Your task to perform on an android device: change keyboard looks Image 0: 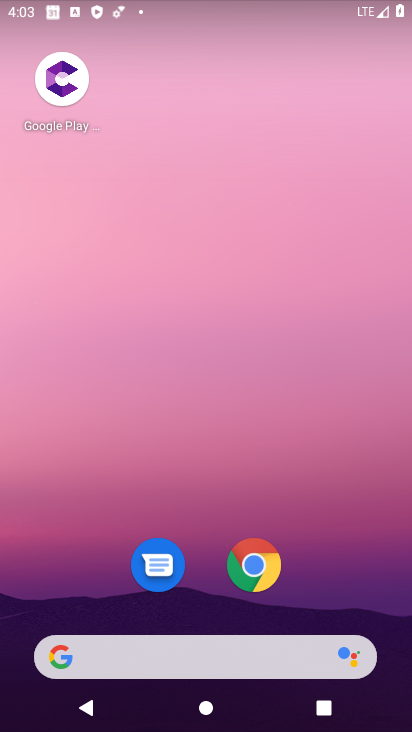
Step 0: drag from (276, 561) to (289, 76)
Your task to perform on an android device: change keyboard looks Image 1: 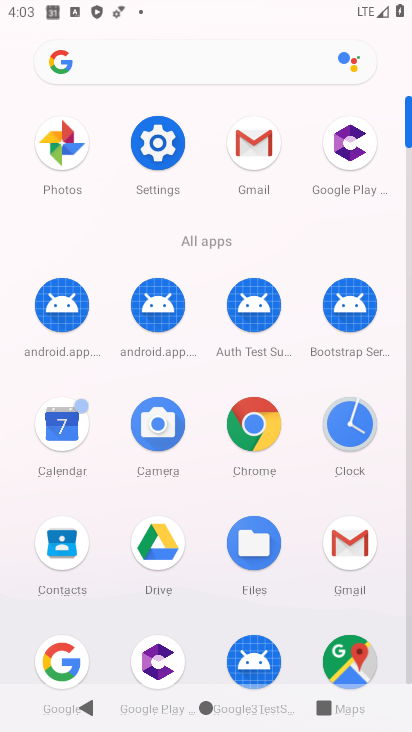
Step 1: click (149, 142)
Your task to perform on an android device: change keyboard looks Image 2: 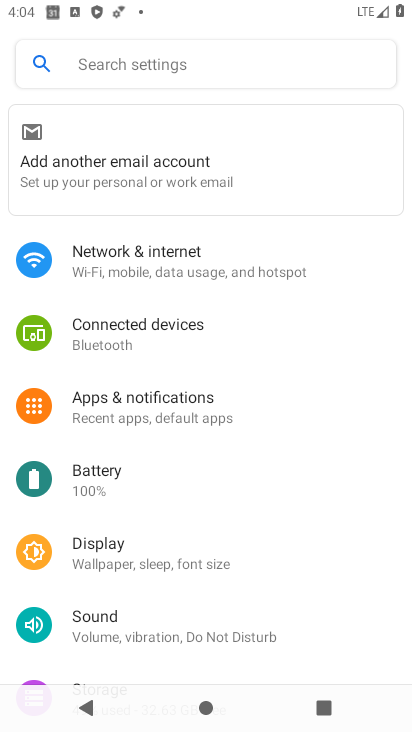
Step 2: drag from (174, 569) to (268, 188)
Your task to perform on an android device: change keyboard looks Image 3: 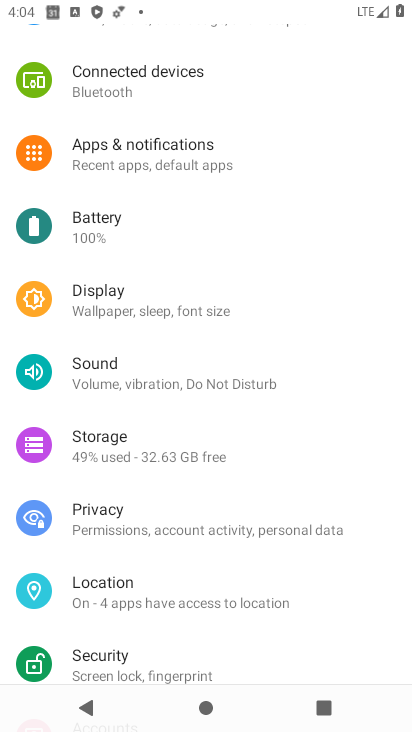
Step 3: drag from (153, 676) to (171, 156)
Your task to perform on an android device: change keyboard looks Image 4: 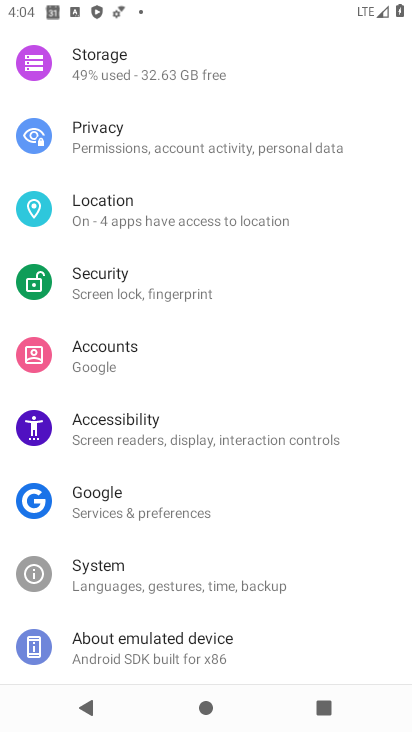
Step 4: click (166, 658)
Your task to perform on an android device: change keyboard looks Image 5: 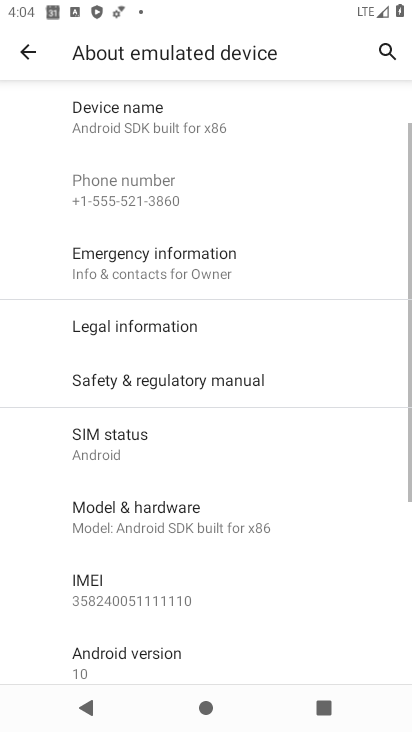
Step 5: press back button
Your task to perform on an android device: change keyboard looks Image 6: 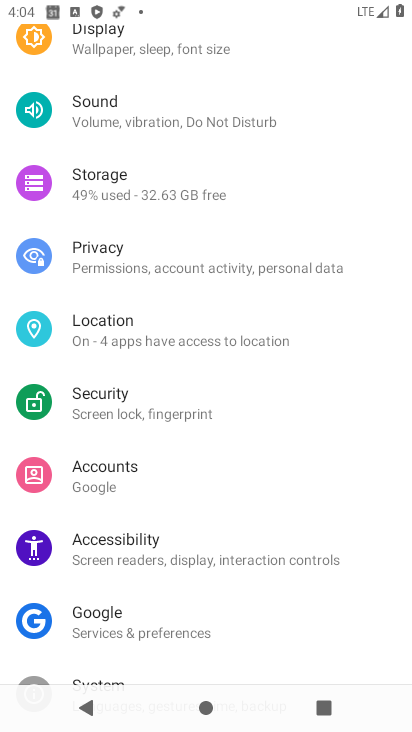
Step 6: drag from (141, 655) to (95, 259)
Your task to perform on an android device: change keyboard looks Image 7: 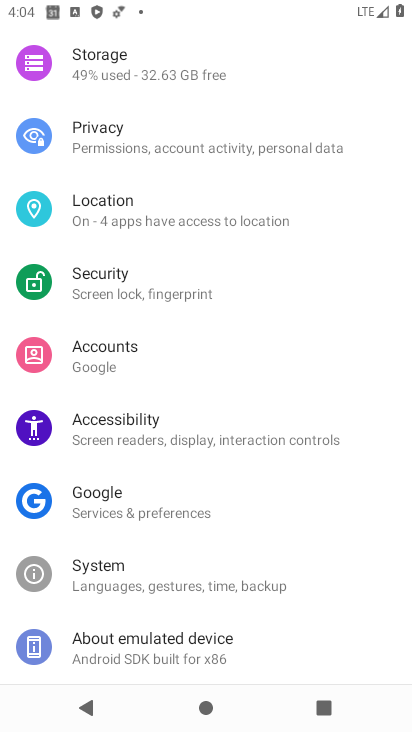
Step 7: click (142, 435)
Your task to perform on an android device: change keyboard looks Image 8: 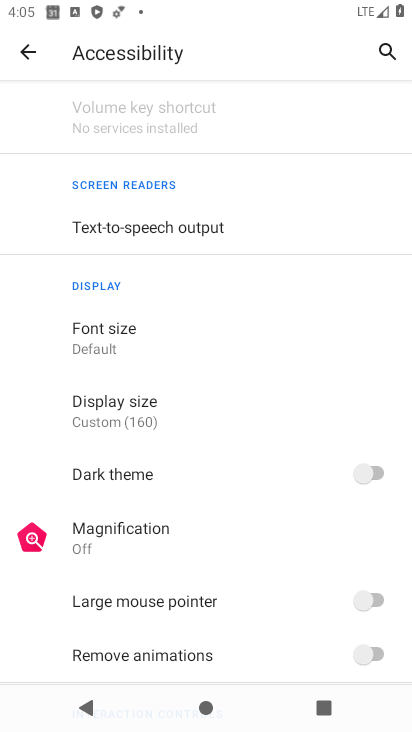
Step 8: drag from (196, 684) to (132, 417)
Your task to perform on an android device: change keyboard looks Image 9: 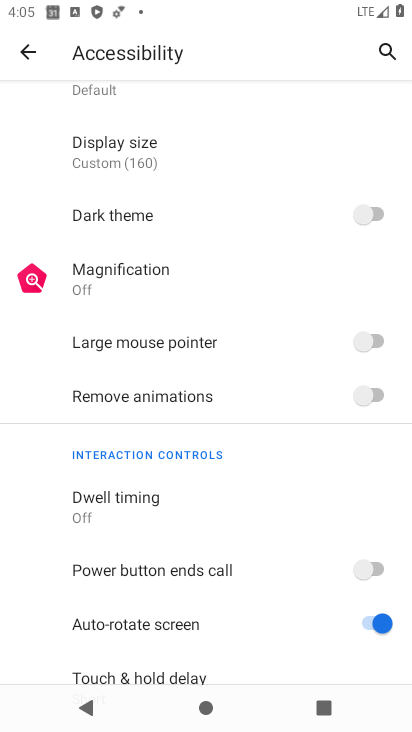
Step 9: press back button
Your task to perform on an android device: change keyboard looks Image 10: 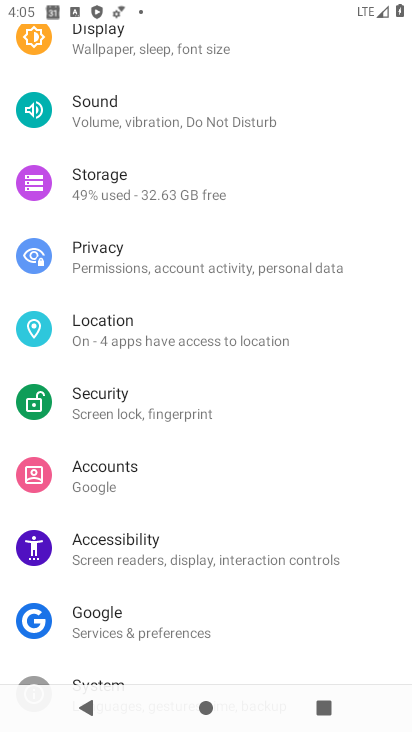
Step 10: drag from (187, 652) to (183, 332)
Your task to perform on an android device: change keyboard looks Image 11: 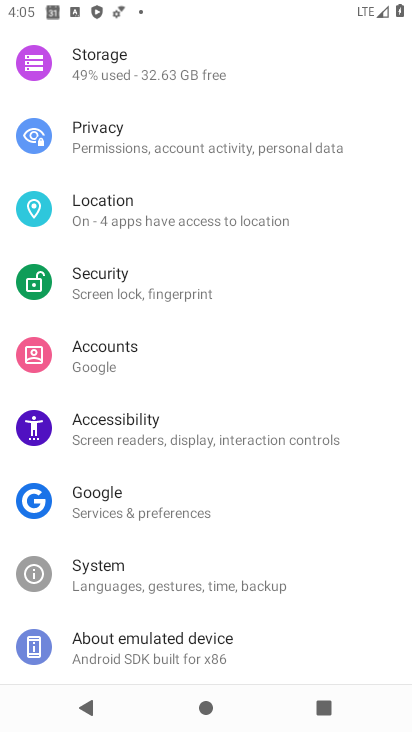
Step 11: click (160, 588)
Your task to perform on an android device: change keyboard looks Image 12: 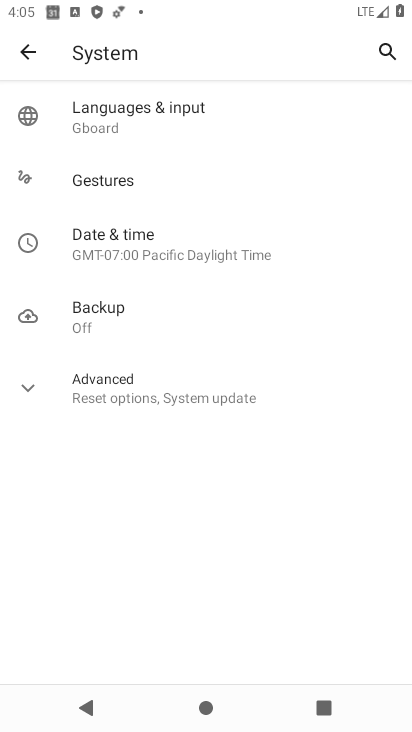
Step 12: click (191, 124)
Your task to perform on an android device: change keyboard looks Image 13: 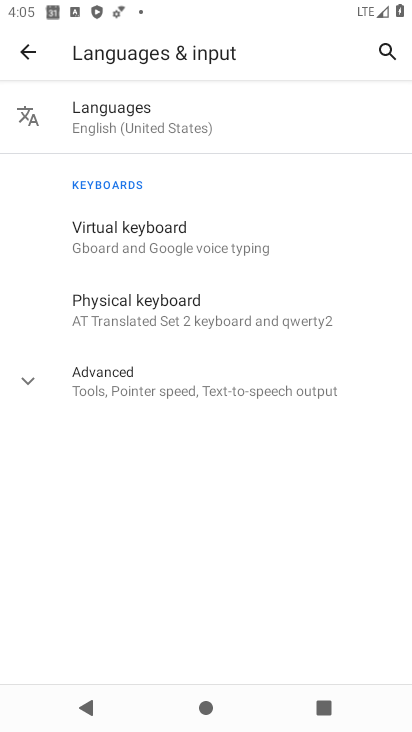
Step 13: click (203, 245)
Your task to perform on an android device: change keyboard looks Image 14: 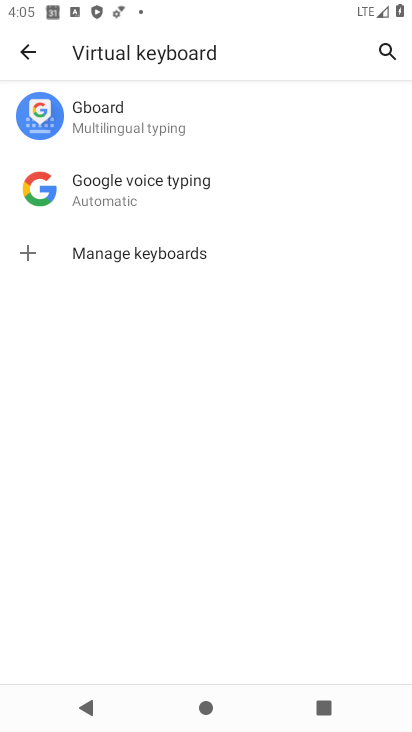
Step 14: click (188, 132)
Your task to perform on an android device: change keyboard looks Image 15: 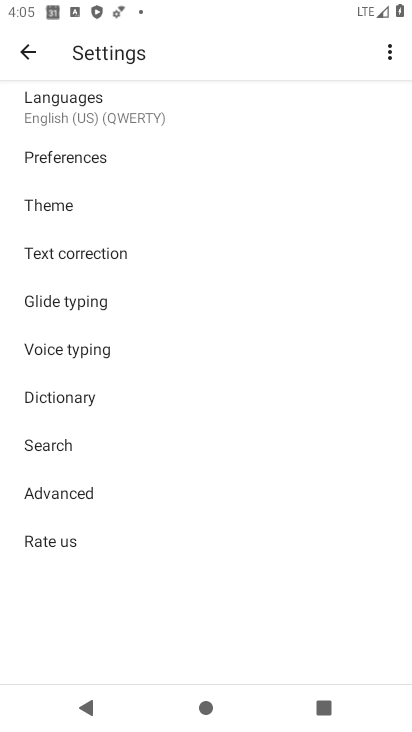
Step 15: click (55, 204)
Your task to perform on an android device: change keyboard looks Image 16: 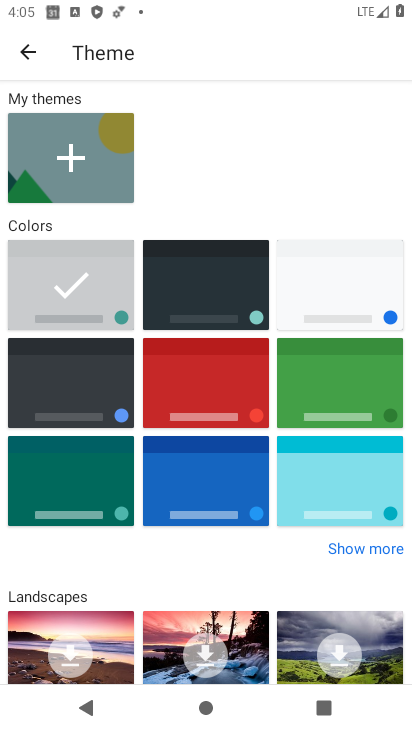
Step 16: click (208, 265)
Your task to perform on an android device: change keyboard looks Image 17: 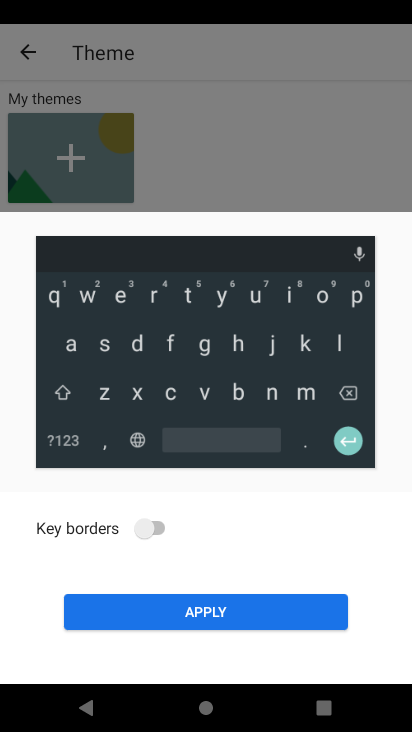
Step 17: click (287, 607)
Your task to perform on an android device: change keyboard looks Image 18: 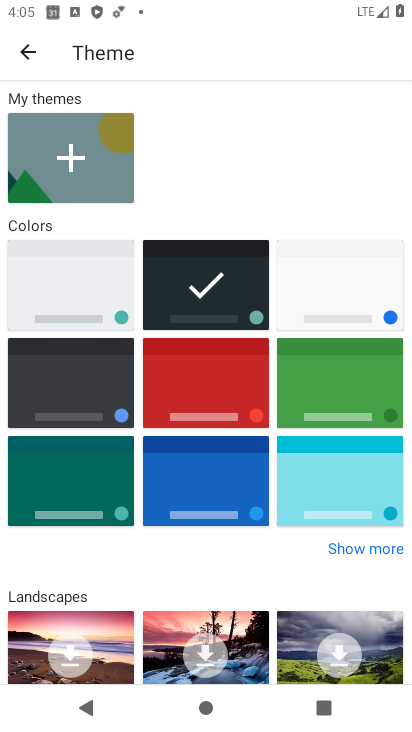
Step 18: task complete